Your task to perform on an android device: turn on wifi Image 0: 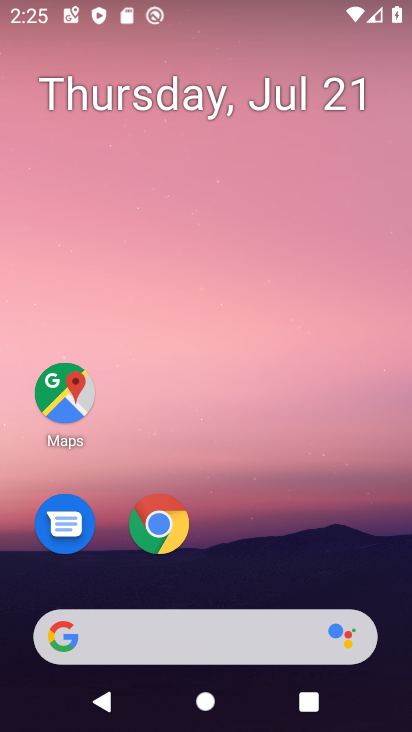
Step 0: drag from (259, 193) to (255, 44)
Your task to perform on an android device: turn on wifi Image 1: 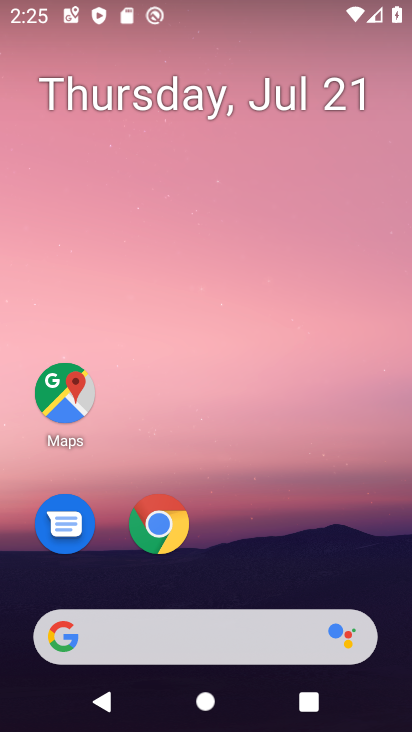
Step 1: drag from (270, 538) to (284, 6)
Your task to perform on an android device: turn on wifi Image 2: 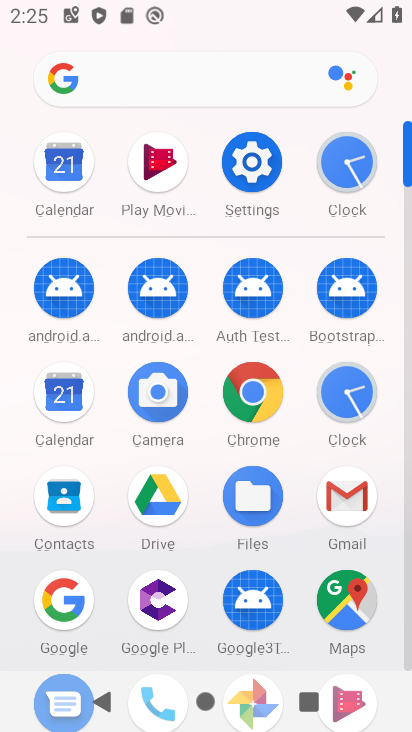
Step 2: click (254, 160)
Your task to perform on an android device: turn on wifi Image 3: 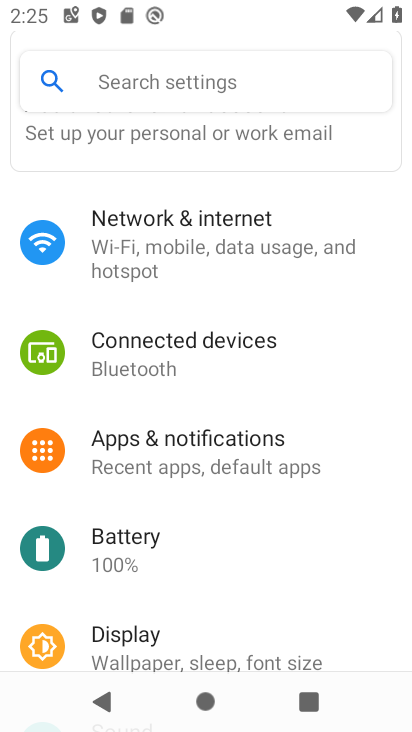
Step 3: click (246, 238)
Your task to perform on an android device: turn on wifi Image 4: 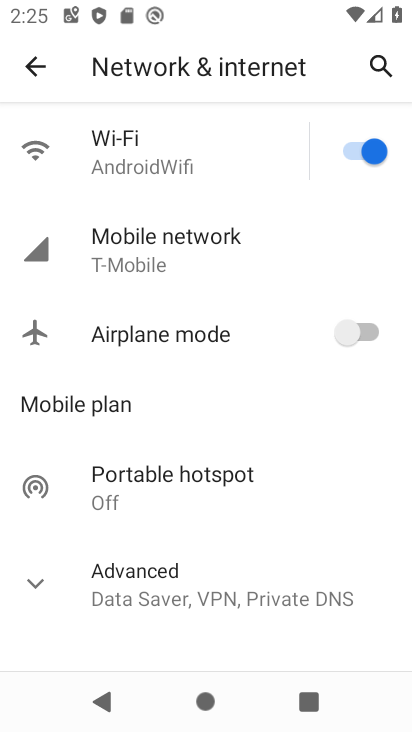
Step 4: task complete